Your task to perform on an android device: Open Google Chrome and click the shortcut for Amazon.com Image 0: 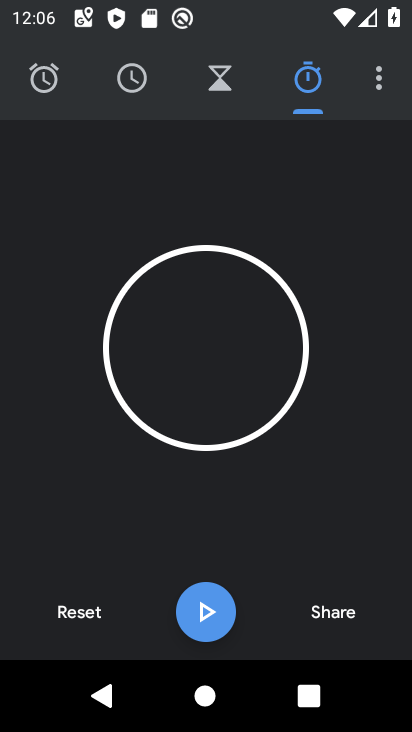
Step 0: press home button
Your task to perform on an android device: Open Google Chrome and click the shortcut for Amazon.com Image 1: 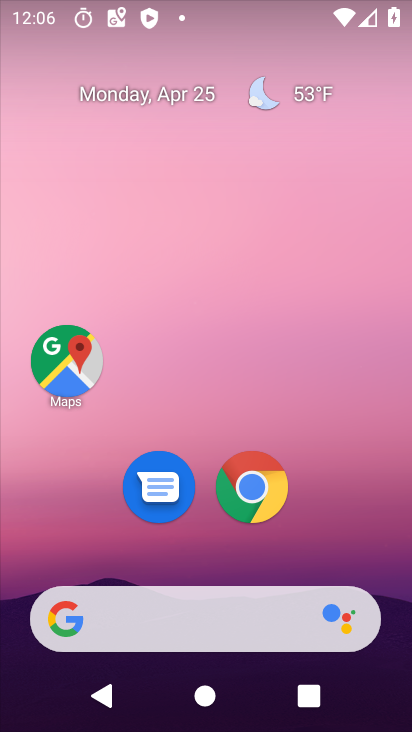
Step 1: click (254, 477)
Your task to perform on an android device: Open Google Chrome and click the shortcut for Amazon.com Image 2: 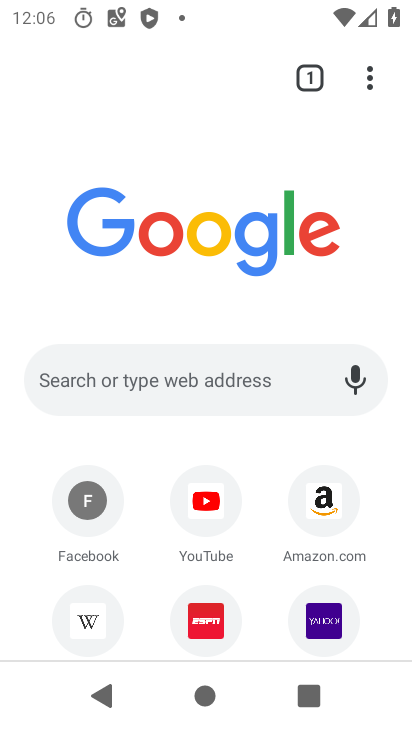
Step 2: click (315, 513)
Your task to perform on an android device: Open Google Chrome and click the shortcut for Amazon.com Image 3: 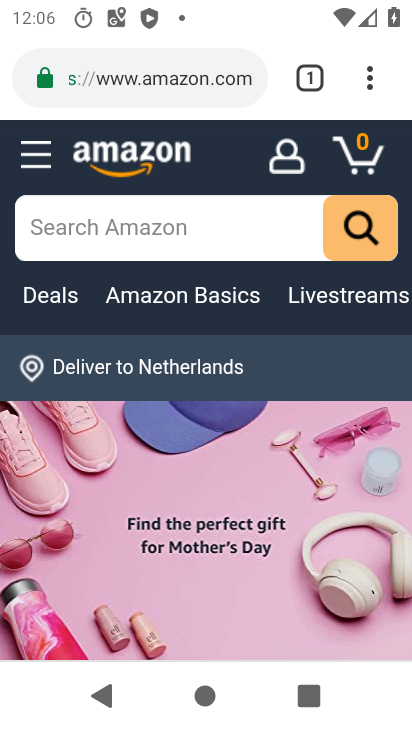
Step 3: task complete